Your task to perform on an android device: Open location settings Image 0: 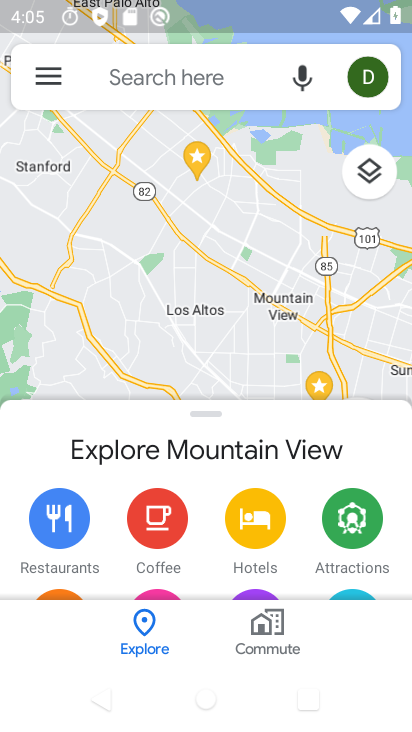
Step 0: press back button
Your task to perform on an android device: Open location settings Image 1: 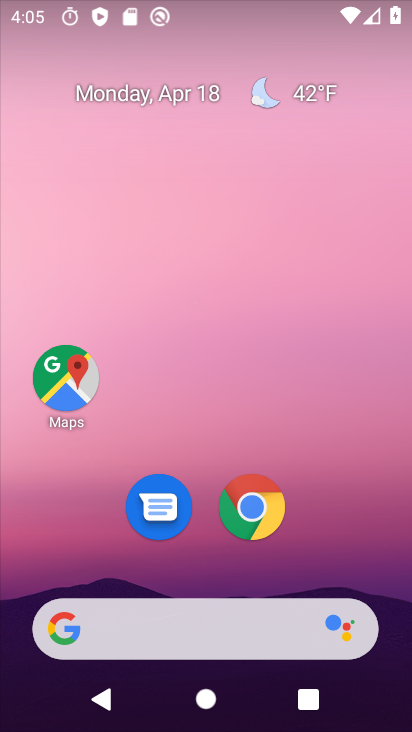
Step 1: drag from (303, 550) to (325, 80)
Your task to perform on an android device: Open location settings Image 2: 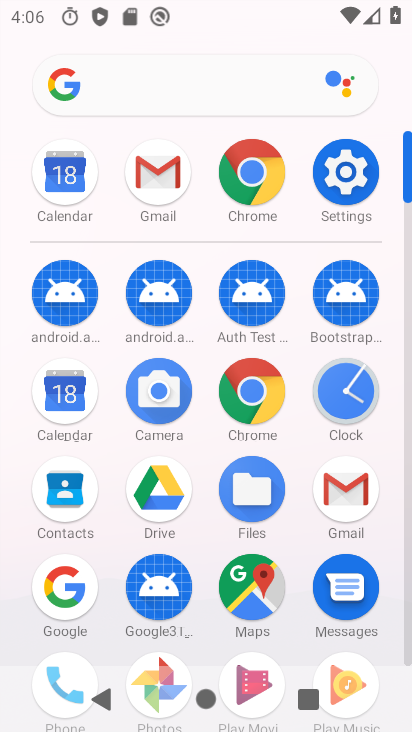
Step 2: click (332, 178)
Your task to perform on an android device: Open location settings Image 3: 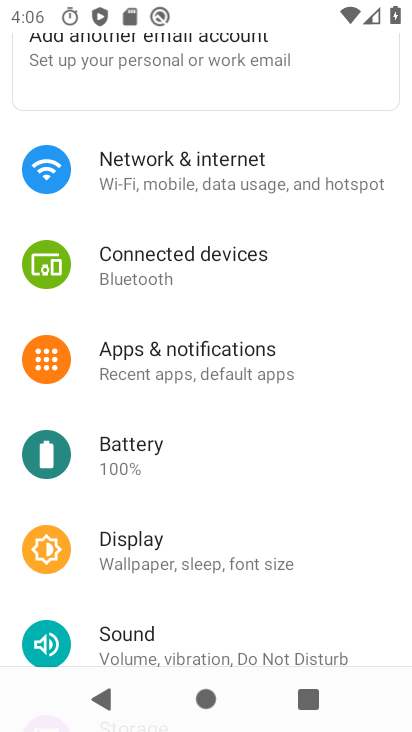
Step 3: drag from (181, 537) to (165, 410)
Your task to perform on an android device: Open location settings Image 4: 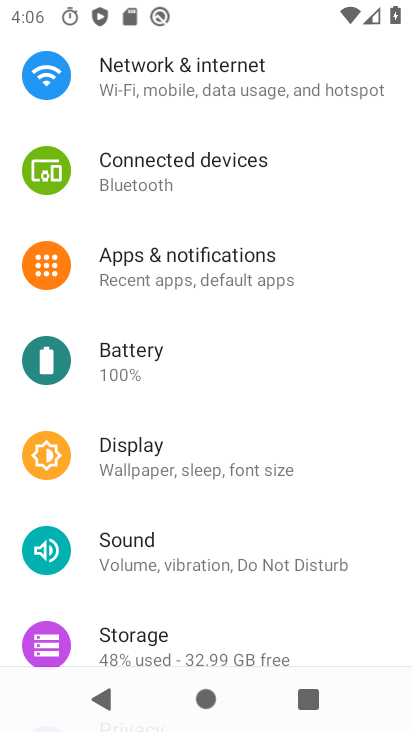
Step 4: drag from (133, 589) to (135, 383)
Your task to perform on an android device: Open location settings Image 5: 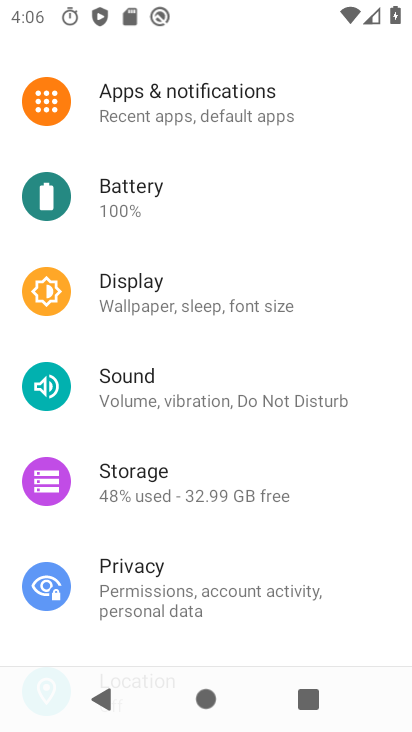
Step 5: drag from (165, 514) to (156, 318)
Your task to perform on an android device: Open location settings Image 6: 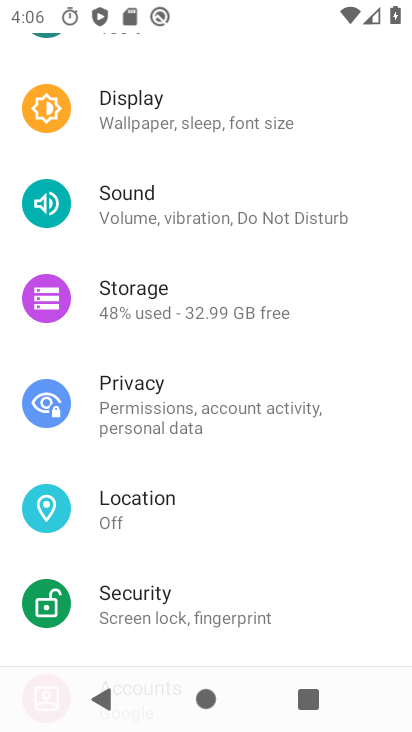
Step 6: click (161, 524)
Your task to perform on an android device: Open location settings Image 7: 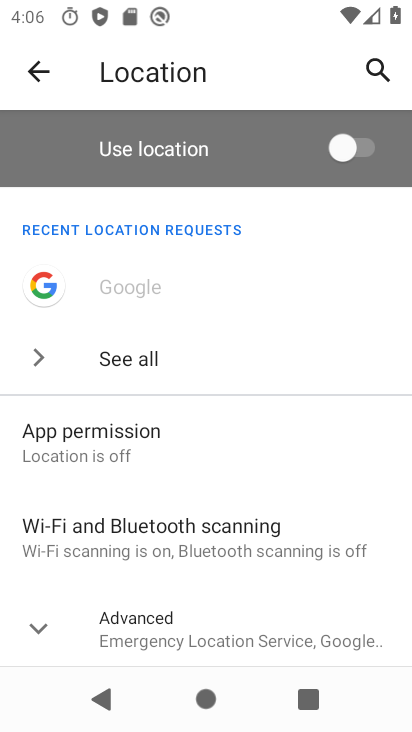
Step 7: task complete